Your task to perform on an android device: manage bookmarks in the chrome app Image 0: 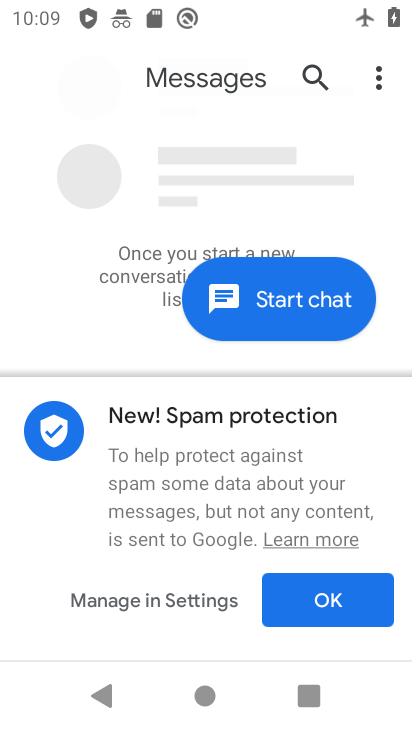
Step 0: press home button
Your task to perform on an android device: manage bookmarks in the chrome app Image 1: 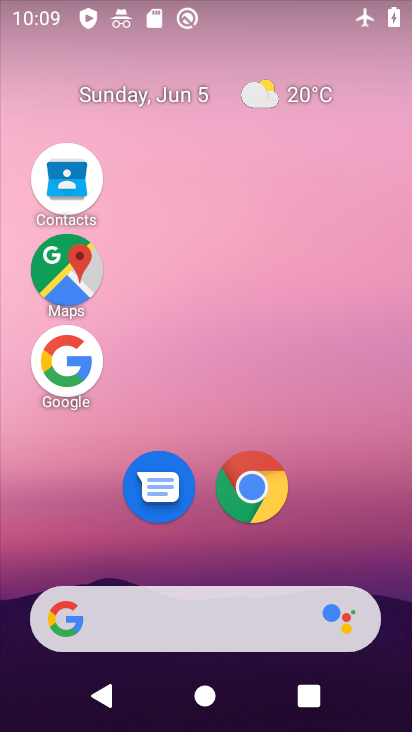
Step 1: drag from (214, 525) to (257, 81)
Your task to perform on an android device: manage bookmarks in the chrome app Image 2: 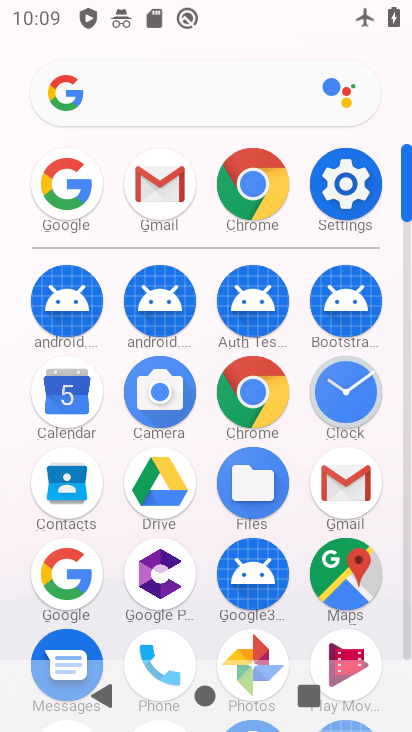
Step 2: click (265, 411)
Your task to perform on an android device: manage bookmarks in the chrome app Image 3: 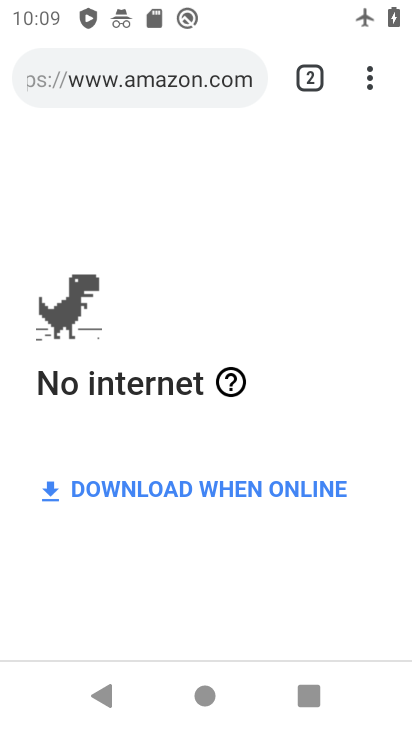
Step 3: click (377, 80)
Your task to perform on an android device: manage bookmarks in the chrome app Image 4: 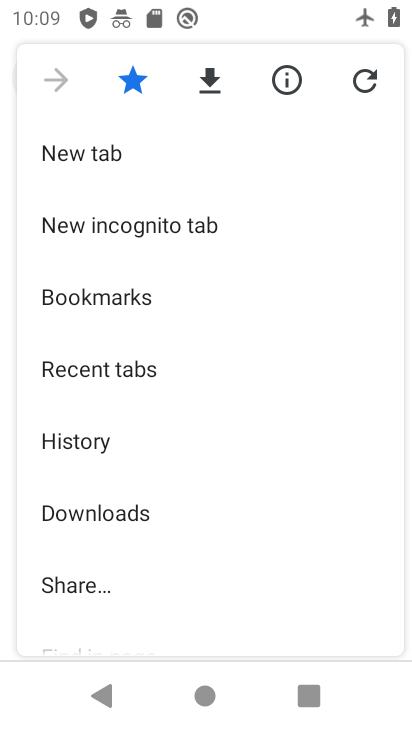
Step 4: click (139, 294)
Your task to perform on an android device: manage bookmarks in the chrome app Image 5: 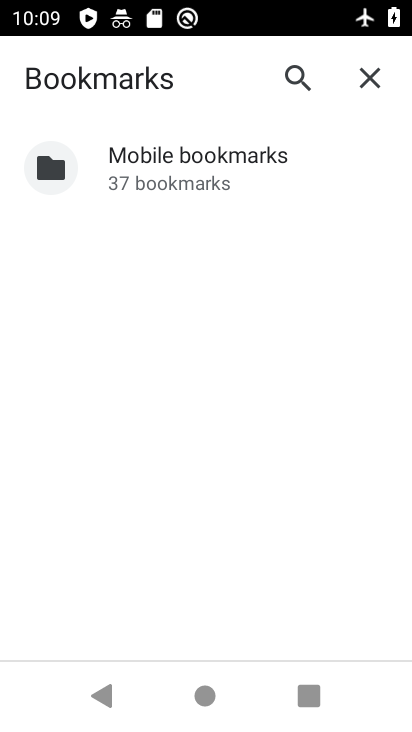
Step 5: task complete